Your task to perform on an android device: snooze an email in the gmail app Image 0: 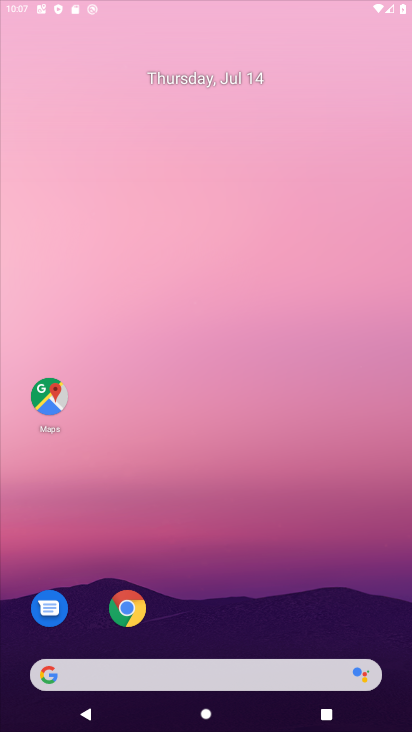
Step 0: press home button
Your task to perform on an android device: snooze an email in the gmail app Image 1: 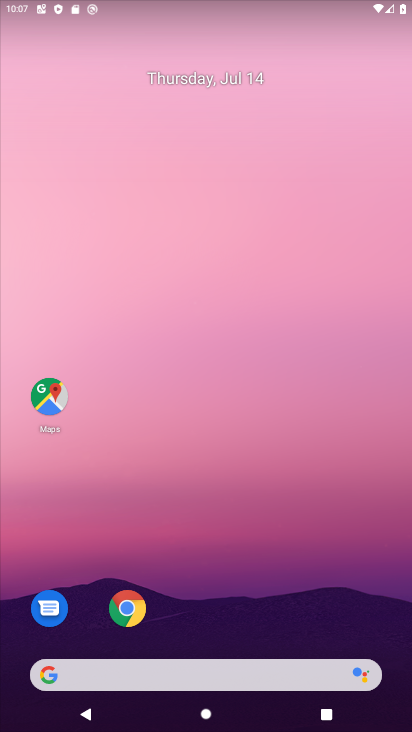
Step 1: drag from (171, 296) to (193, 130)
Your task to perform on an android device: snooze an email in the gmail app Image 2: 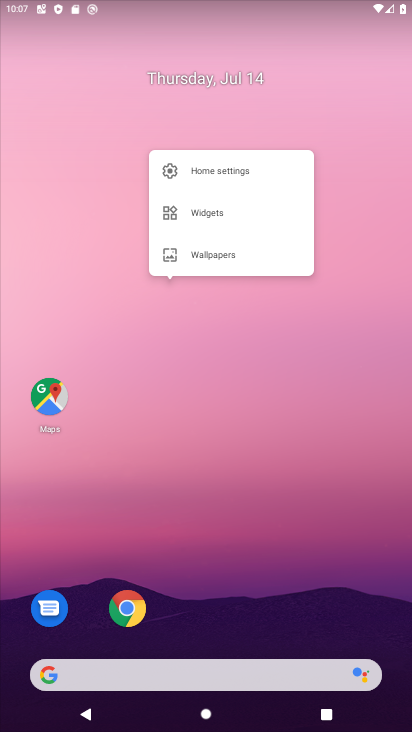
Step 2: click (196, 634)
Your task to perform on an android device: snooze an email in the gmail app Image 3: 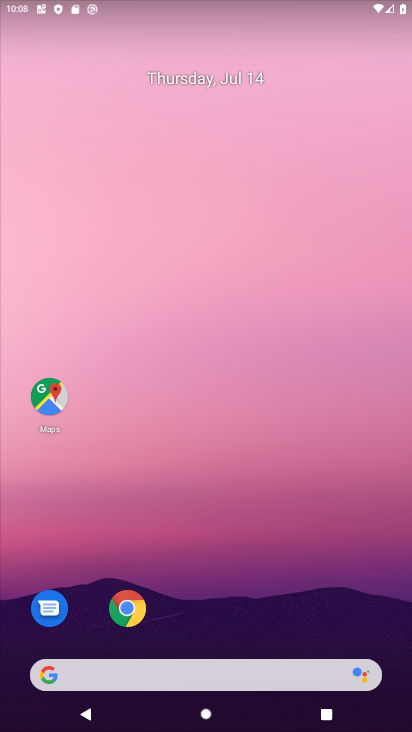
Step 3: drag from (172, 522) to (157, 181)
Your task to perform on an android device: snooze an email in the gmail app Image 4: 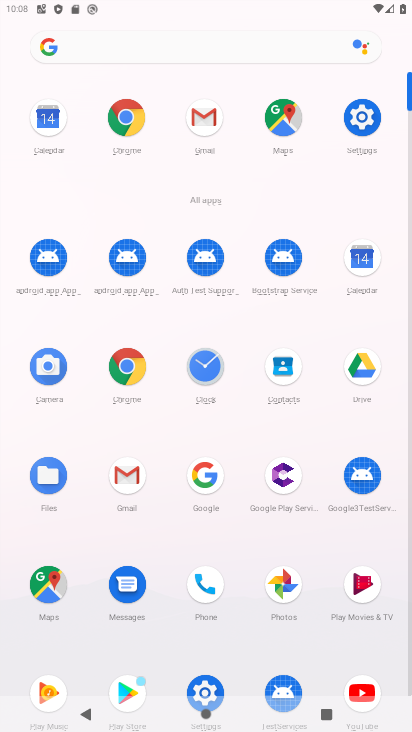
Step 4: click (200, 122)
Your task to perform on an android device: snooze an email in the gmail app Image 5: 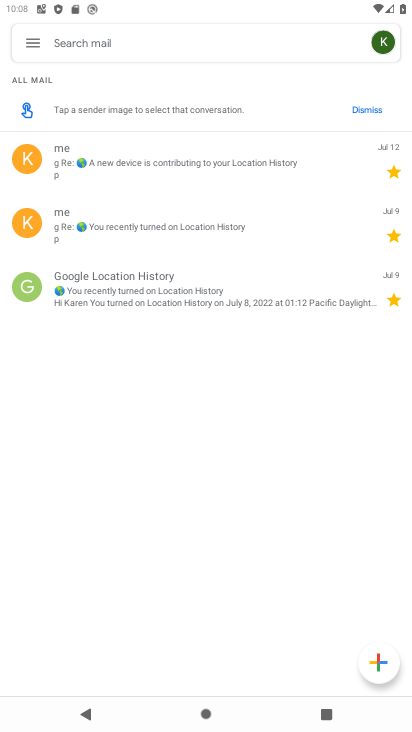
Step 5: click (215, 162)
Your task to perform on an android device: snooze an email in the gmail app Image 6: 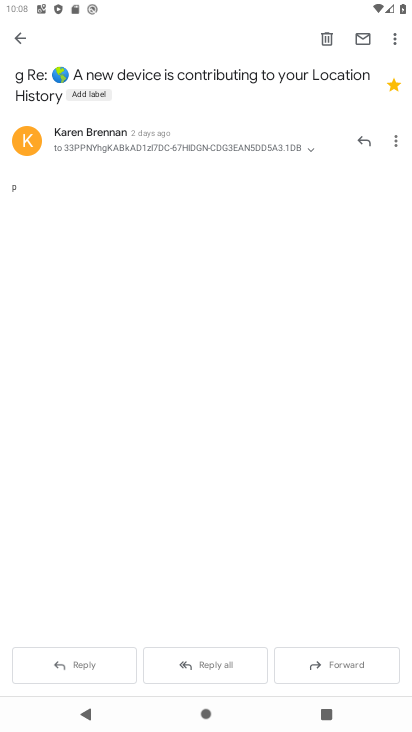
Step 6: click (393, 138)
Your task to perform on an android device: snooze an email in the gmail app Image 7: 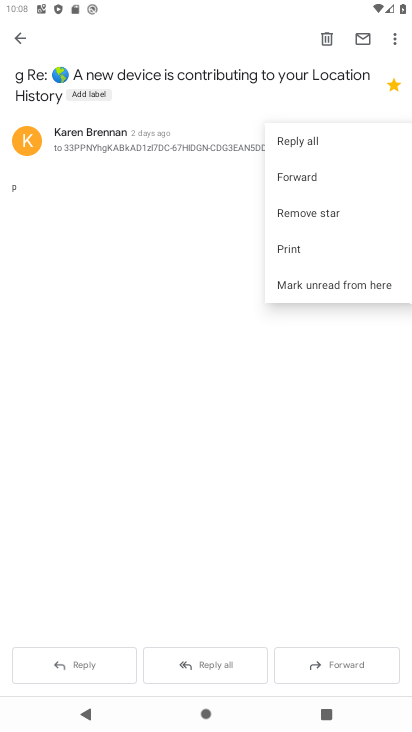
Step 7: click (395, 38)
Your task to perform on an android device: snooze an email in the gmail app Image 8: 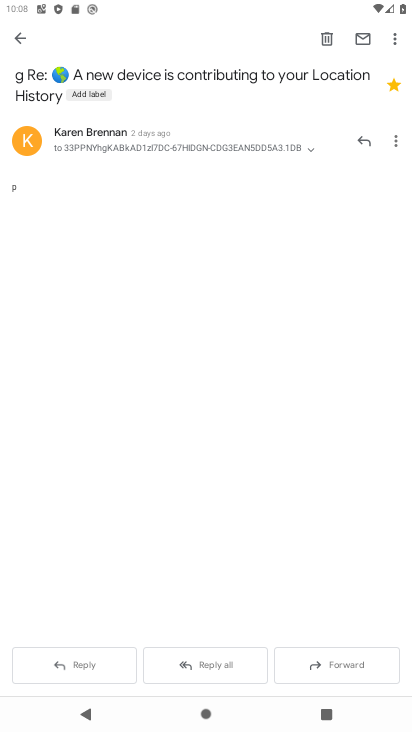
Step 8: click (395, 38)
Your task to perform on an android device: snooze an email in the gmail app Image 9: 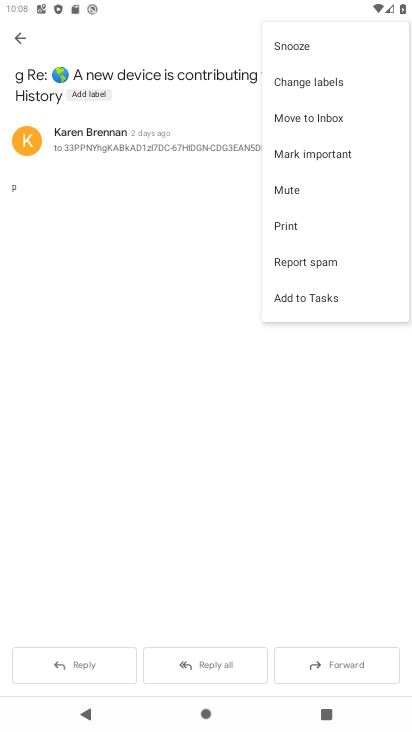
Step 9: click (297, 46)
Your task to perform on an android device: snooze an email in the gmail app Image 10: 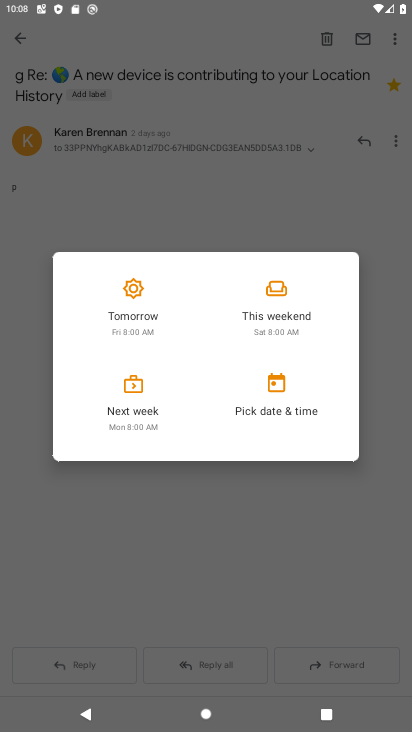
Step 10: click (127, 313)
Your task to perform on an android device: snooze an email in the gmail app Image 11: 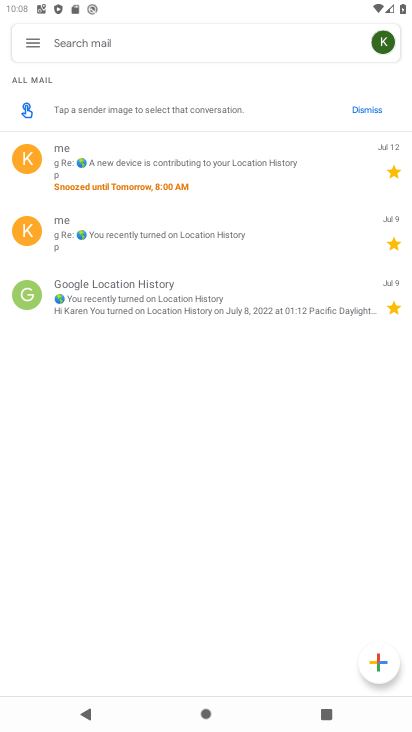
Step 11: task complete